Your task to perform on an android device: move a message to another label in the gmail app Image 0: 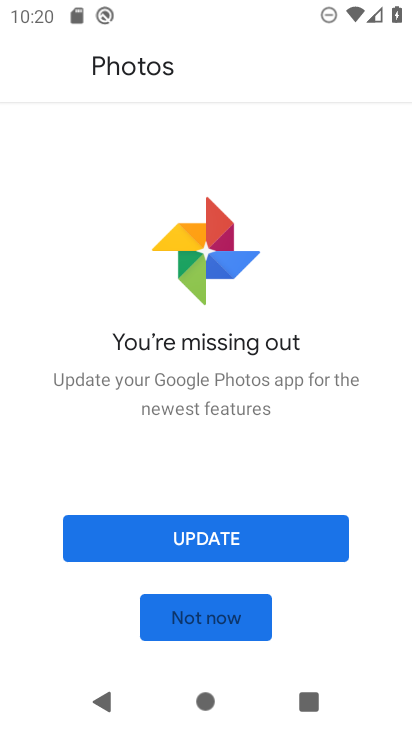
Step 0: press home button
Your task to perform on an android device: move a message to another label in the gmail app Image 1: 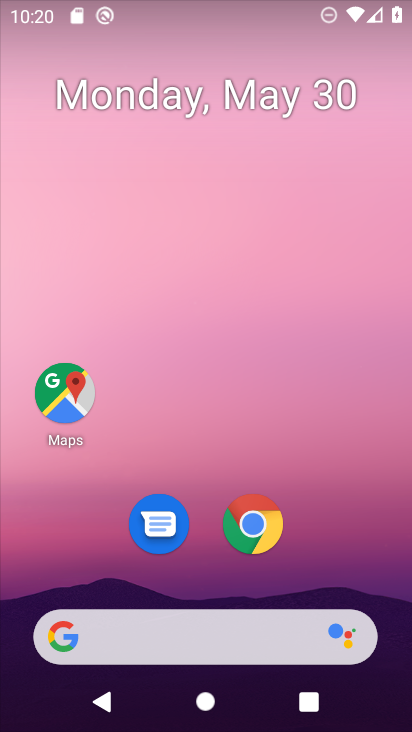
Step 1: drag from (340, 482) to (355, 98)
Your task to perform on an android device: move a message to another label in the gmail app Image 2: 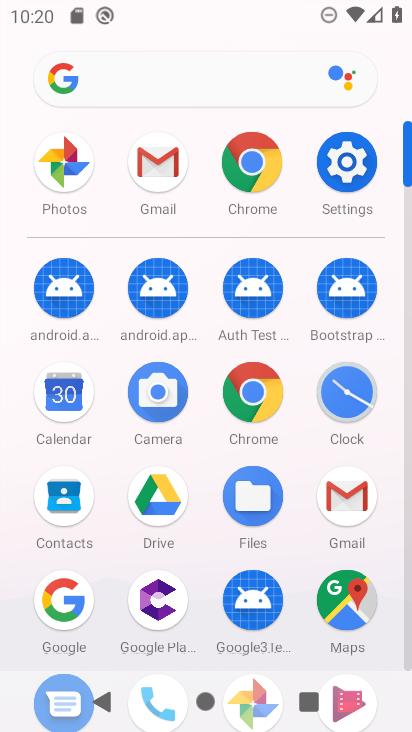
Step 2: click (162, 170)
Your task to perform on an android device: move a message to another label in the gmail app Image 3: 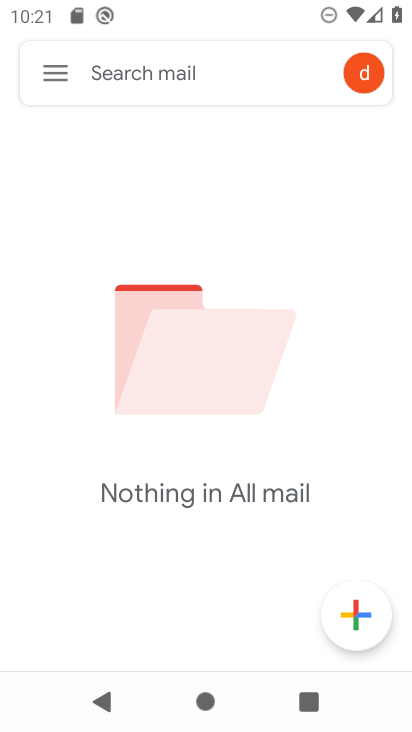
Step 3: task complete